Your task to perform on an android device: Search for logitech g502 on costco, select the first entry, add it to the cart, then select checkout. Image 0: 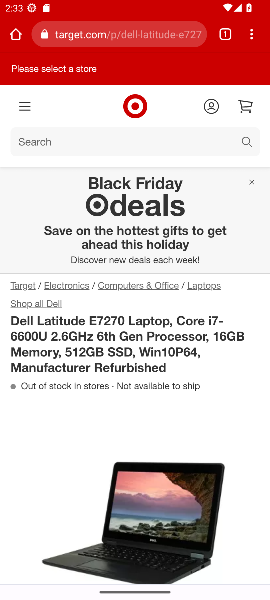
Step 0: click (123, 32)
Your task to perform on an android device: Search for logitech g502 on costco, select the first entry, add it to the cart, then select checkout. Image 1: 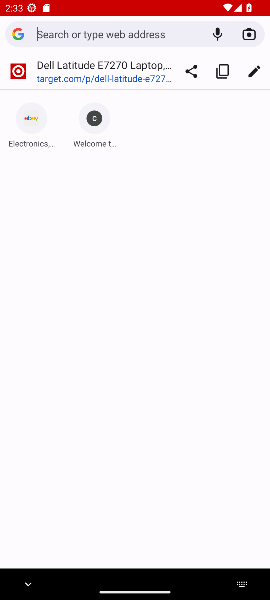
Step 1: type "costco"
Your task to perform on an android device: Search for logitech g502 on costco, select the first entry, add it to the cart, then select checkout. Image 2: 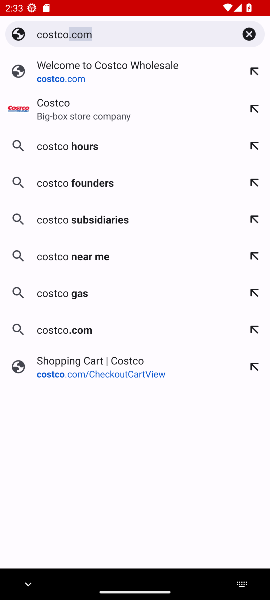
Step 2: press enter
Your task to perform on an android device: Search for logitech g502 on costco, select the first entry, add it to the cart, then select checkout. Image 3: 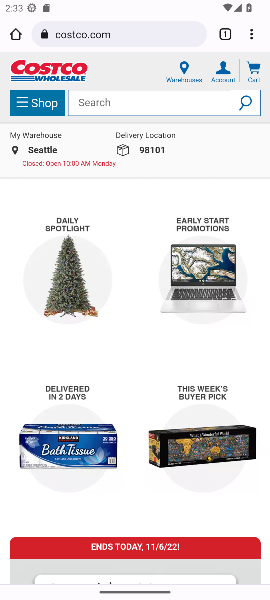
Step 3: click (128, 103)
Your task to perform on an android device: Search for logitech g502 on costco, select the first entry, add it to the cart, then select checkout. Image 4: 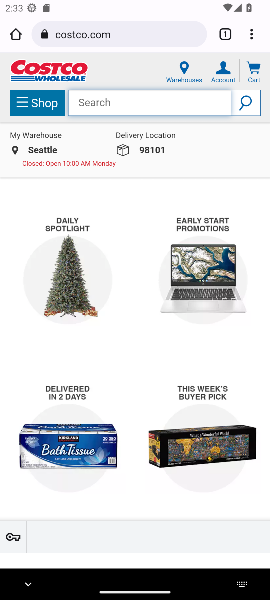
Step 4: type "logitech g502"
Your task to perform on an android device: Search for logitech g502 on costco, select the first entry, add it to the cart, then select checkout. Image 5: 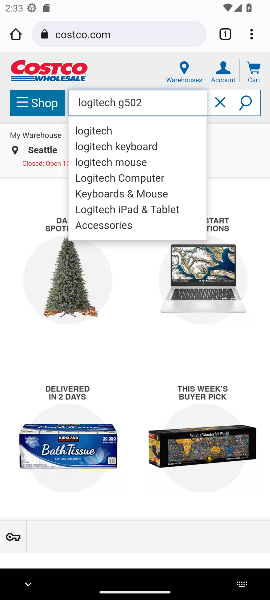
Step 5: press enter
Your task to perform on an android device: Search for logitech g502 on costco, select the first entry, add it to the cart, then select checkout. Image 6: 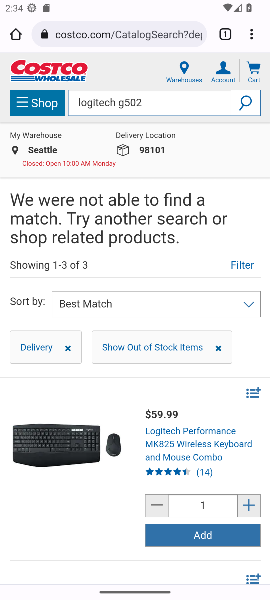
Step 6: drag from (175, 390) to (153, 267)
Your task to perform on an android device: Search for logitech g502 on costco, select the first entry, add it to the cart, then select checkout. Image 7: 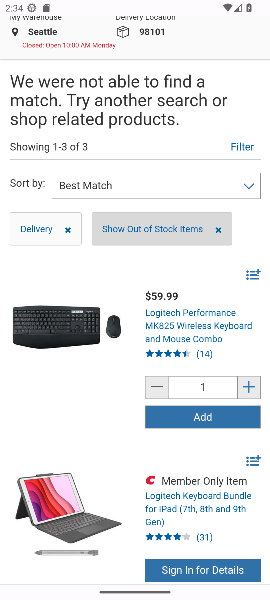
Step 7: click (79, 327)
Your task to perform on an android device: Search for logitech g502 on costco, select the first entry, add it to the cart, then select checkout. Image 8: 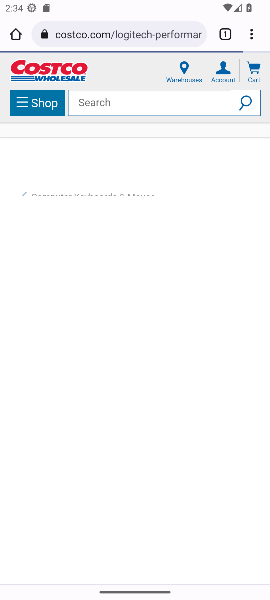
Step 8: drag from (192, 512) to (137, 102)
Your task to perform on an android device: Search for logitech g502 on costco, select the first entry, add it to the cart, then select checkout. Image 9: 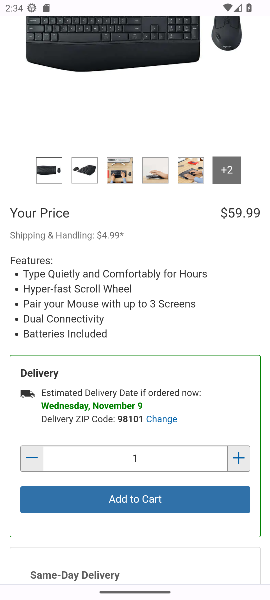
Step 9: click (131, 451)
Your task to perform on an android device: Search for logitech g502 on costco, select the first entry, add it to the cart, then select checkout. Image 10: 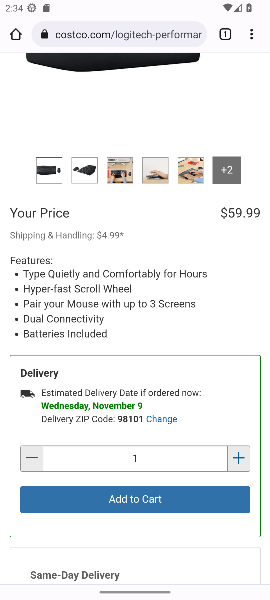
Step 10: click (134, 503)
Your task to perform on an android device: Search for logitech g502 on costco, select the first entry, add it to the cart, then select checkout. Image 11: 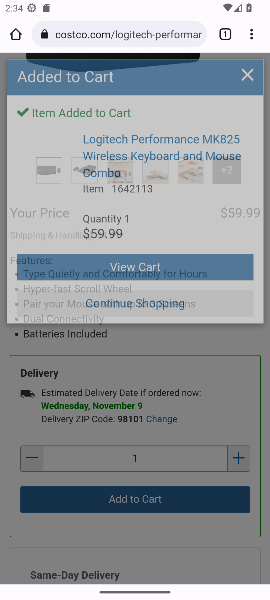
Step 11: click (137, 266)
Your task to perform on an android device: Search for logitech g502 on costco, select the first entry, add it to the cart, then select checkout. Image 12: 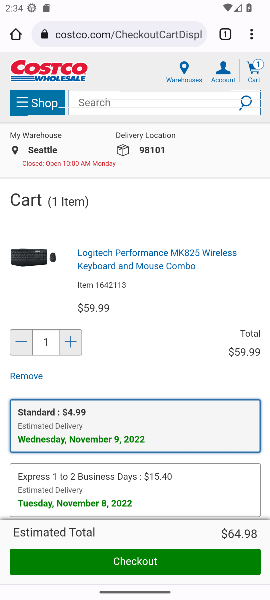
Step 12: click (123, 560)
Your task to perform on an android device: Search for logitech g502 on costco, select the first entry, add it to the cart, then select checkout. Image 13: 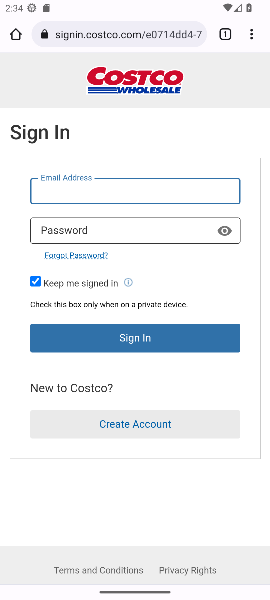
Step 13: task complete